Your task to perform on an android device: find snoozed emails in the gmail app Image 0: 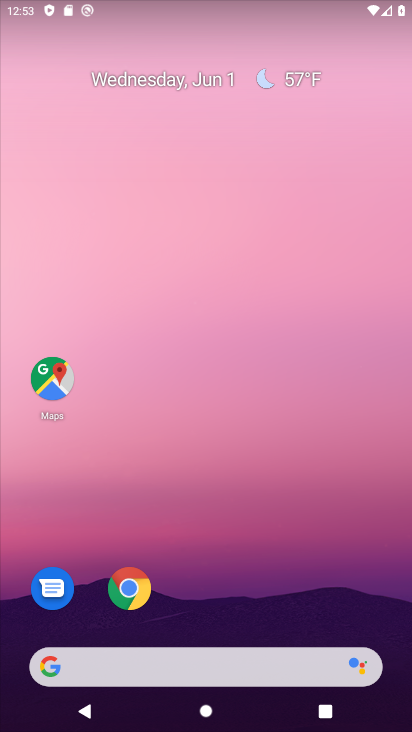
Step 0: drag from (300, 580) to (203, 55)
Your task to perform on an android device: find snoozed emails in the gmail app Image 1: 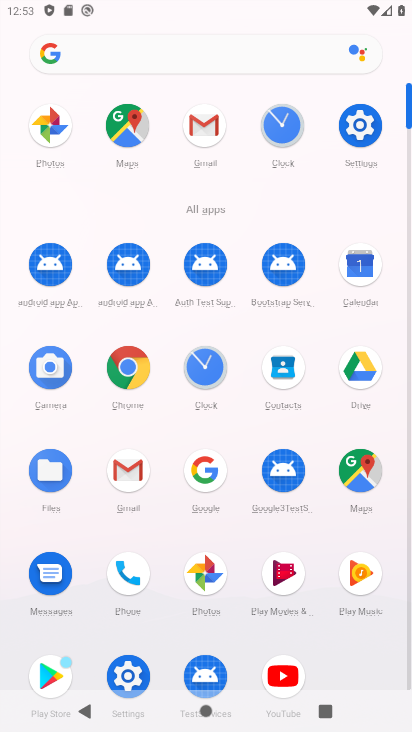
Step 1: click (139, 473)
Your task to perform on an android device: find snoozed emails in the gmail app Image 2: 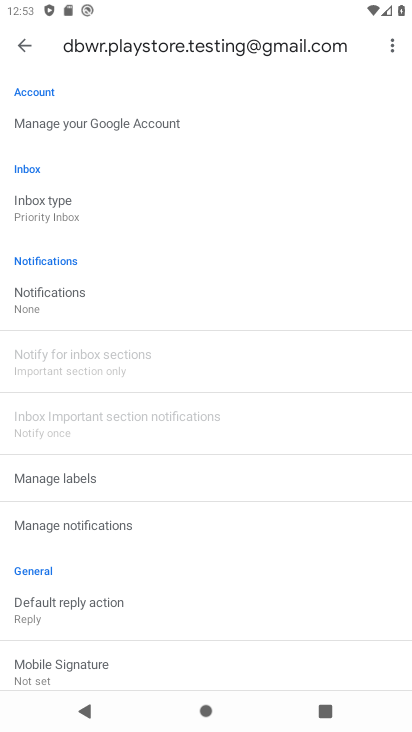
Step 2: click (23, 56)
Your task to perform on an android device: find snoozed emails in the gmail app Image 3: 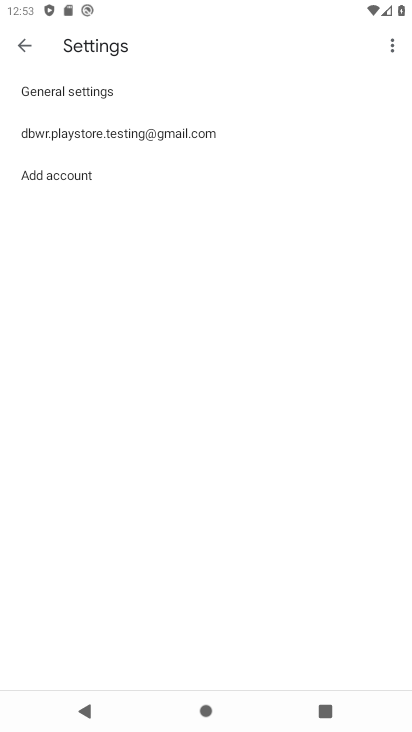
Step 3: click (24, 54)
Your task to perform on an android device: find snoozed emails in the gmail app Image 4: 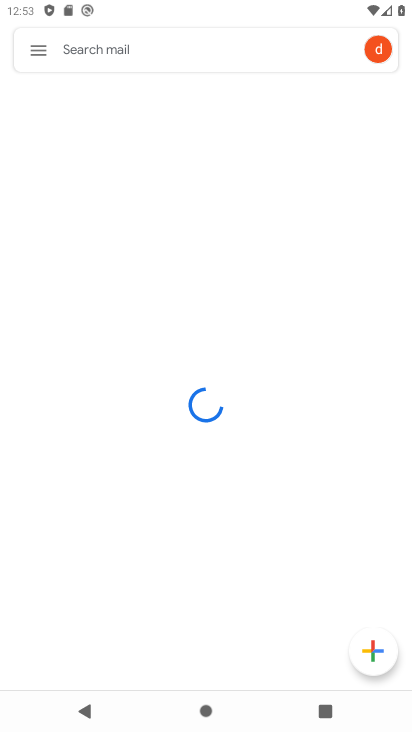
Step 4: click (38, 50)
Your task to perform on an android device: find snoozed emails in the gmail app Image 5: 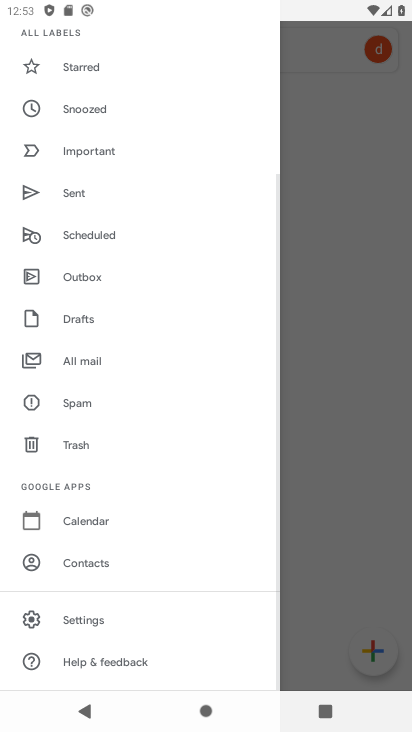
Step 5: click (120, 106)
Your task to perform on an android device: find snoozed emails in the gmail app Image 6: 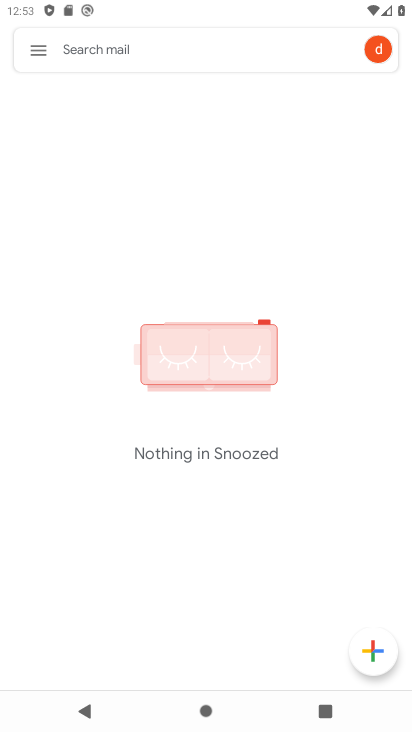
Step 6: task complete